Your task to perform on an android device: empty trash in the gmail app Image 0: 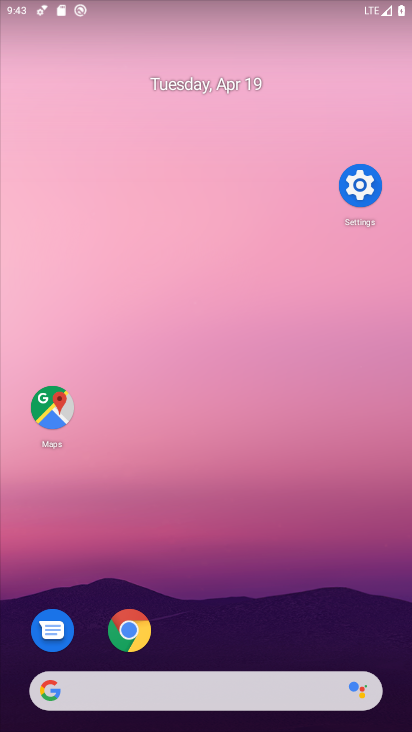
Step 0: drag from (264, 622) to (271, 106)
Your task to perform on an android device: empty trash in the gmail app Image 1: 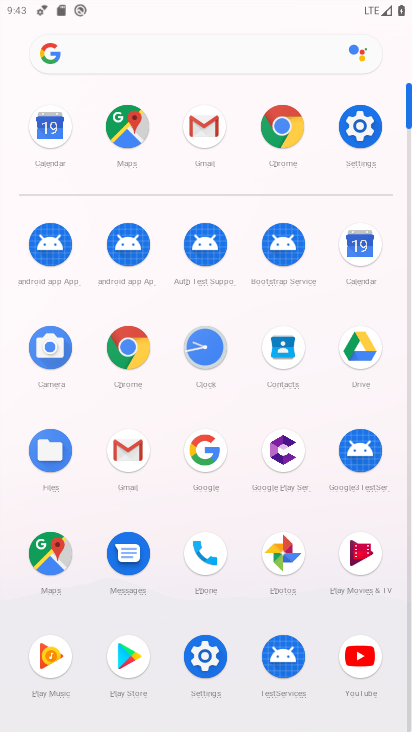
Step 1: click (128, 460)
Your task to perform on an android device: empty trash in the gmail app Image 2: 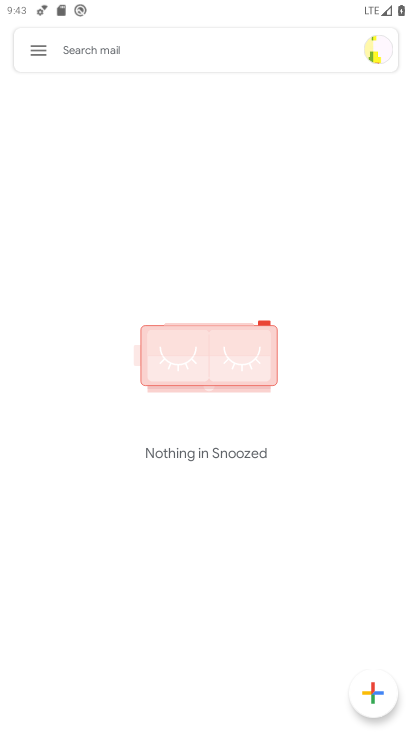
Step 2: click (38, 52)
Your task to perform on an android device: empty trash in the gmail app Image 3: 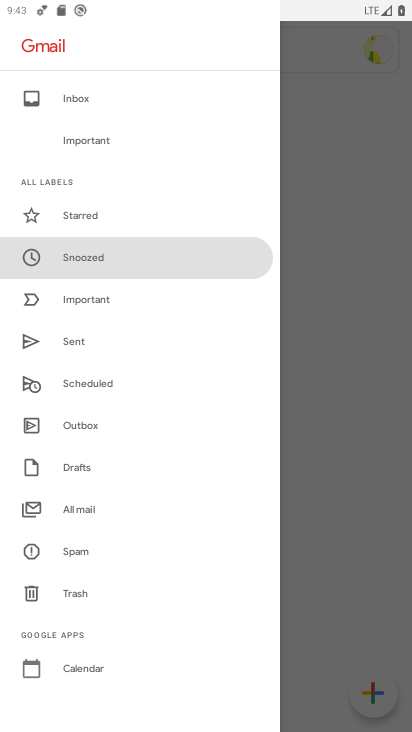
Step 3: click (91, 598)
Your task to perform on an android device: empty trash in the gmail app Image 4: 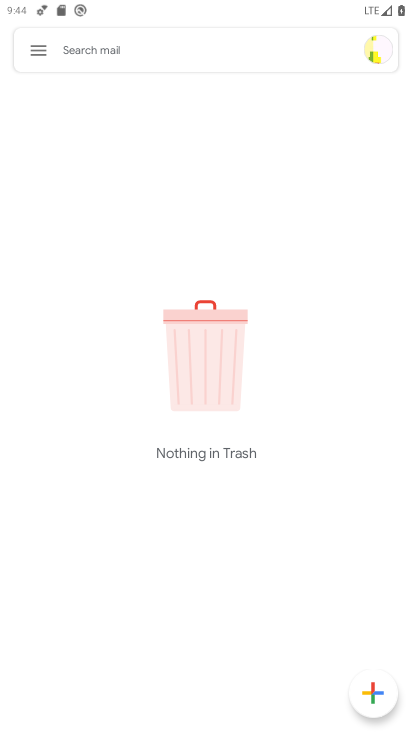
Step 4: task complete